Your task to perform on an android device: Open Yahoo.com Image 0: 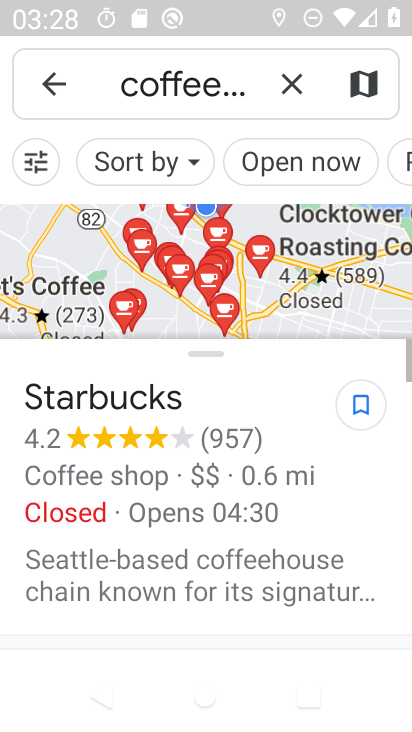
Step 0: press home button
Your task to perform on an android device: Open Yahoo.com Image 1: 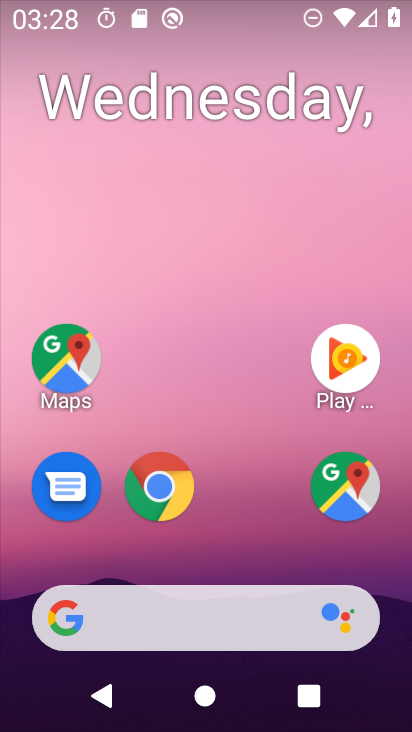
Step 1: drag from (262, 539) to (245, 121)
Your task to perform on an android device: Open Yahoo.com Image 2: 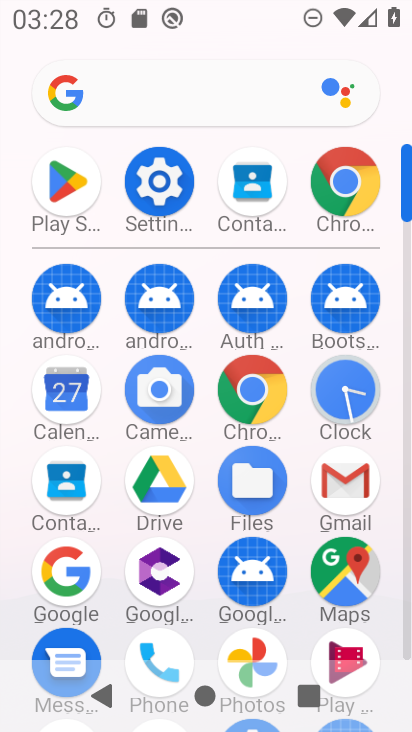
Step 2: click (260, 392)
Your task to perform on an android device: Open Yahoo.com Image 3: 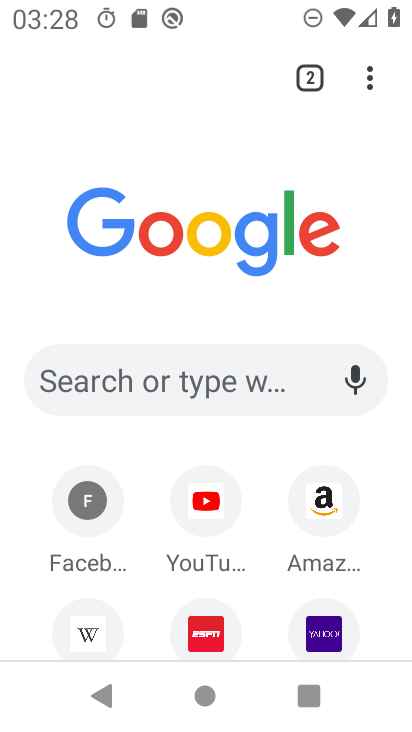
Step 3: click (240, 389)
Your task to perform on an android device: Open Yahoo.com Image 4: 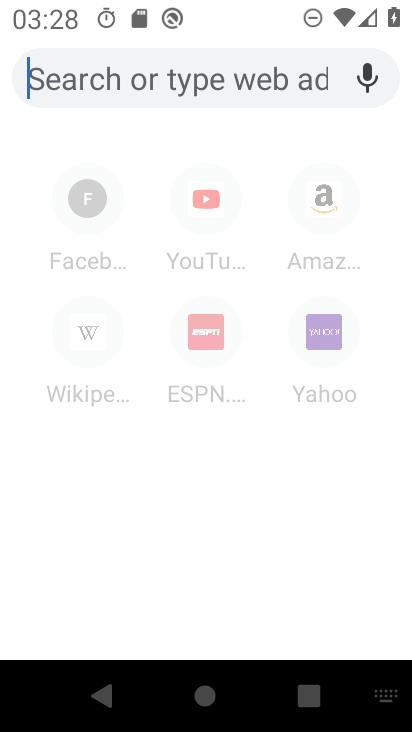
Step 4: type "yahoo.com"
Your task to perform on an android device: Open Yahoo.com Image 5: 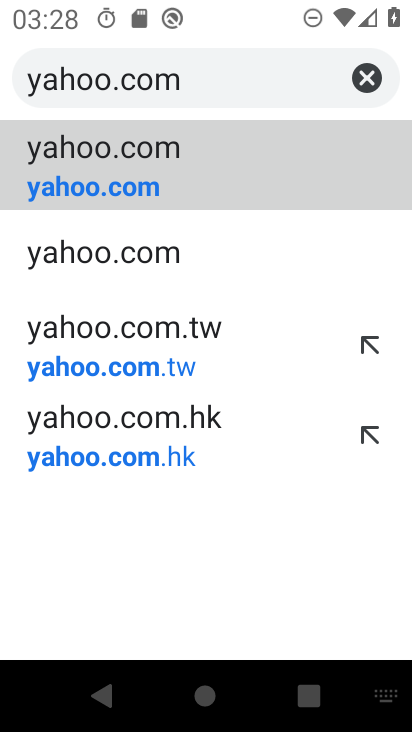
Step 5: click (328, 181)
Your task to perform on an android device: Open Yahoo.com Image 6: 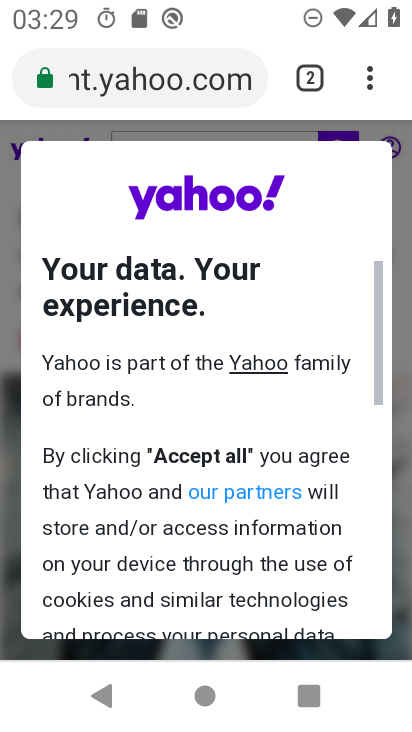
Step 6: task complete